Your task to perform on an android device: Show me recent news Image 0: 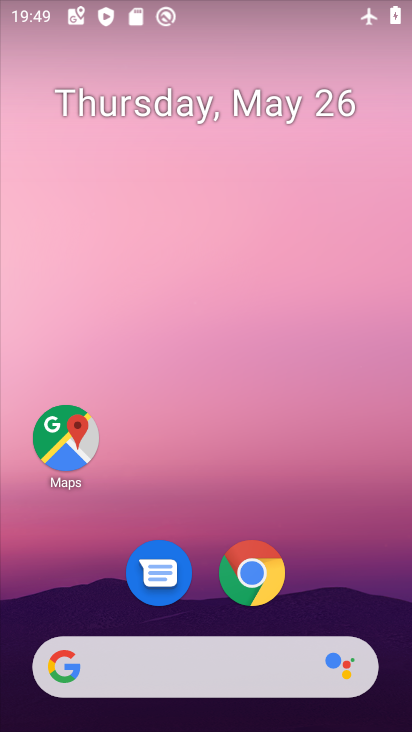
Step 0: drag from (326, 543) to (313, 120)
Your task to perform on an android device: Show me recent news Image 1: 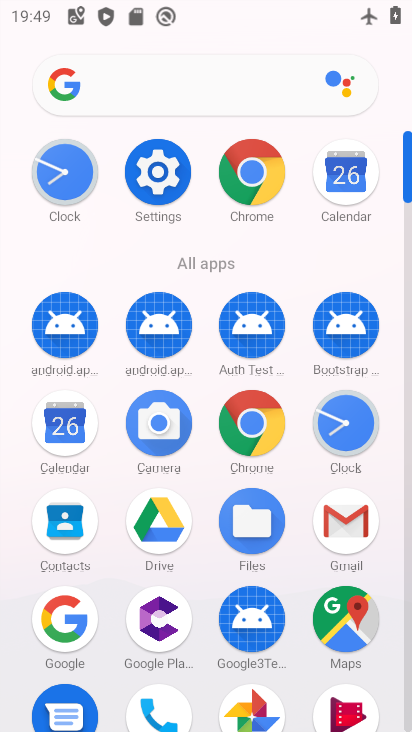
Step 1: click (262, 421)
Your task to perform on an android device: Show me recent news Image 2: 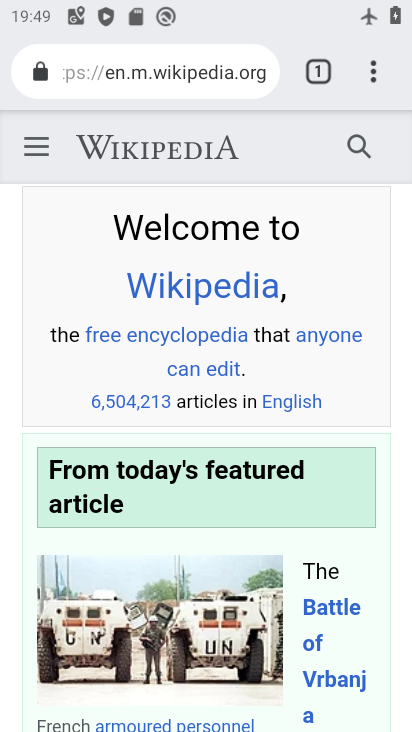
Step 2: click (199, 76)
Your task to perform on an android device: Show me recent news Image 3: 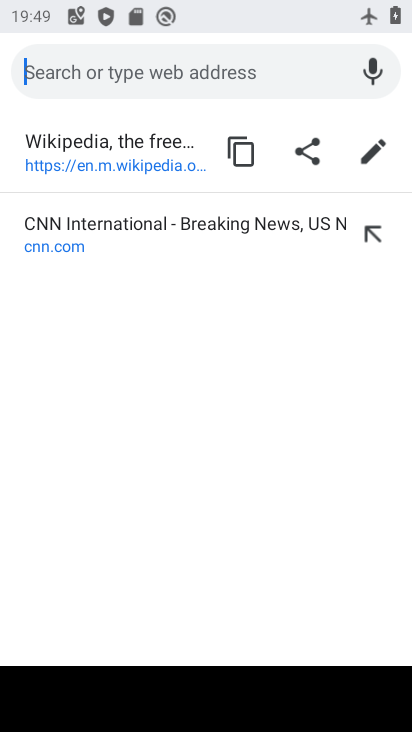
Step 3: type "news"
Your task to perform on an android device: Show me recent news Image 4: 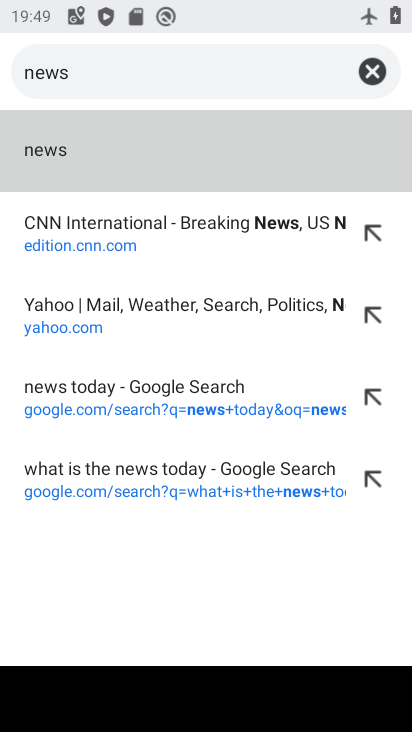
Step 4: click (34, 155)
Your task to perform on an android device: Show me recent news Image 5: 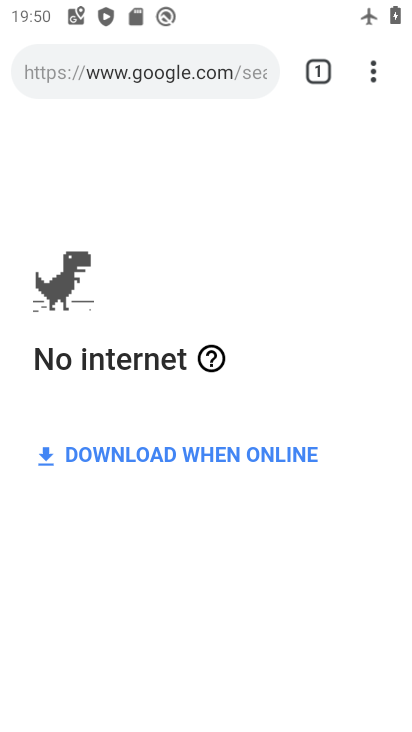
Step 5: task complete